Your task to perform on an android device: Show me the best 1080p monitor on Target.com Image 0: 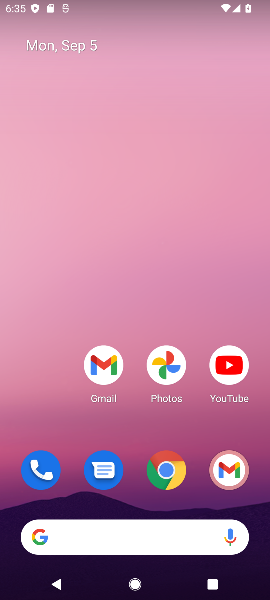
Step 0: click (127, 534)
Your task to perform on an android device: Show me the best 1080p monitor on Target.com Image 1: 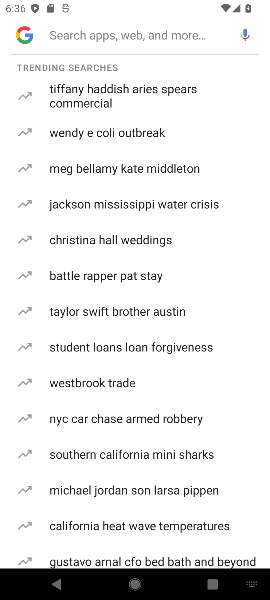
Step 1: type "taeget"
Your task to perform on an android device: Show me the best 1080p monitor on Target.com Image 2: 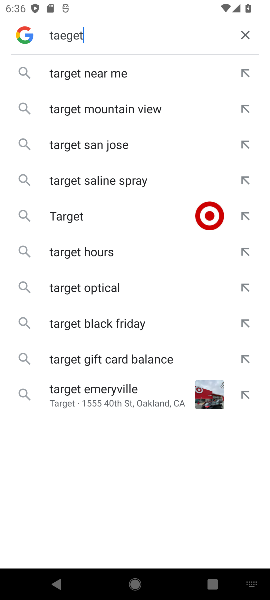
Step 2: click (64, 206)
Your task to perform on an android device: Show me the best 1080p monitor on Target.com Image 3: 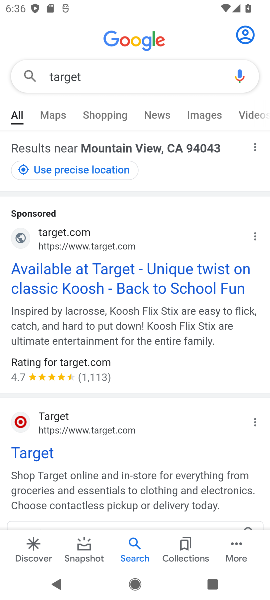
Step 3: click (43, 449)
Your task to perform on an android device: Show me the best 1080p monitor on Target.com Image 4: 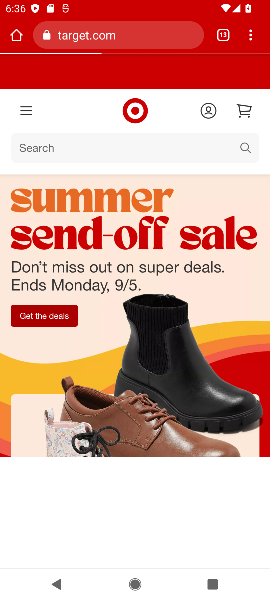
Step 4: click (148, 148)
Your task to perform on an android device: Show me the best 1080p monitor on Target.com Image 5: 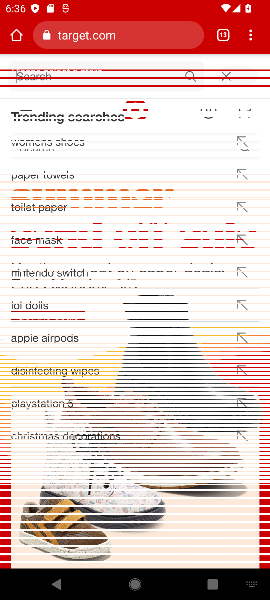
Step 5: type " best 1080p monitor"
Your task to perform on an android device: Show me the best 1080p monitor on Target.com Image 6: 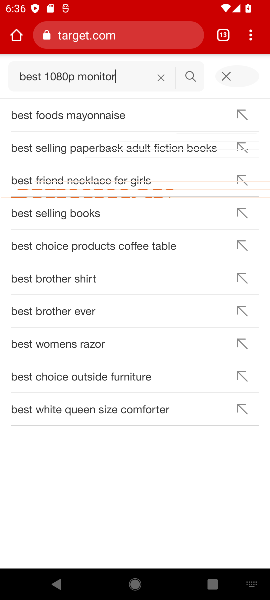
Step 6: click (188, 75)
Your task to perform on an android device: Show me the best 1080p monitor on Target.com Image 7: 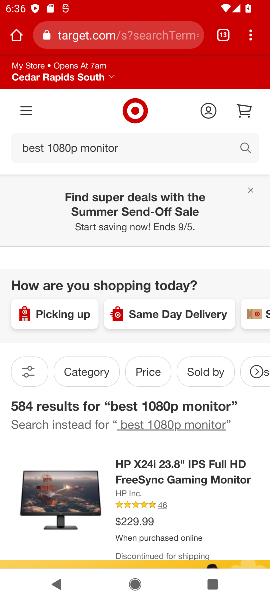
Step 7: task complete